Your task to perform on an android device: turn off airplane mode Image 0: 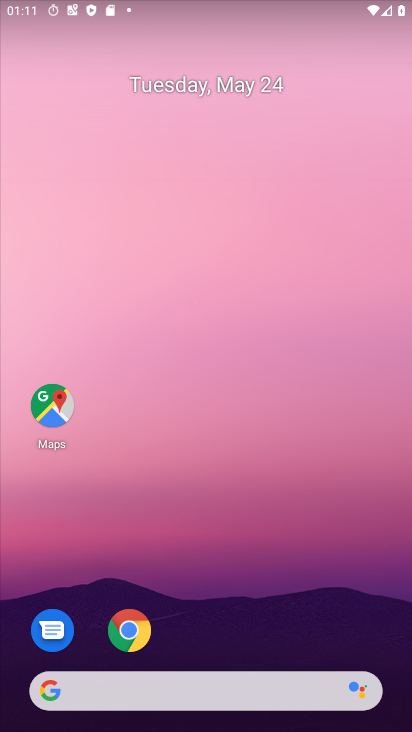
Step 0: drag from (311, 657) to (362, 1)
Your task to perform on an android device: turn off airplane mode Image 1: 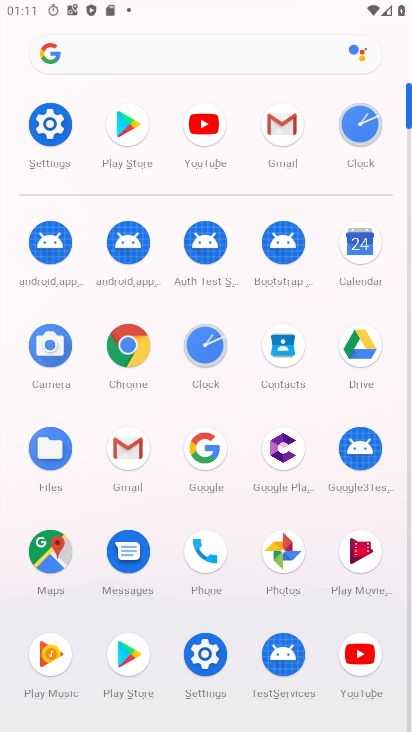
Step 1: click (51, 126)
Your task to perform on an android device: turn off airplane mode Image 2: 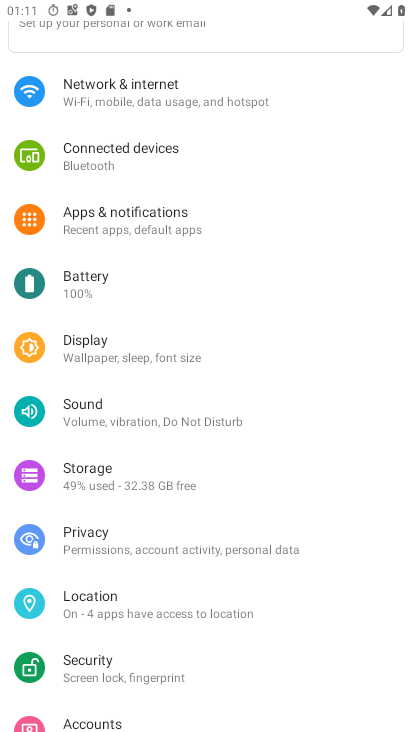
Step 2: click (114, 101)
Your task to perform on an android device: turn off airplane mode Image 3: 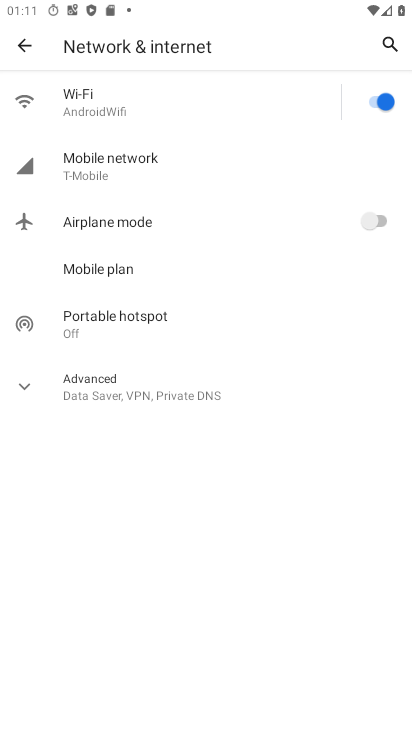
Step 3: task complete